Your task to perform on an android device: Search for pizza restaurants on Maps Image 0: 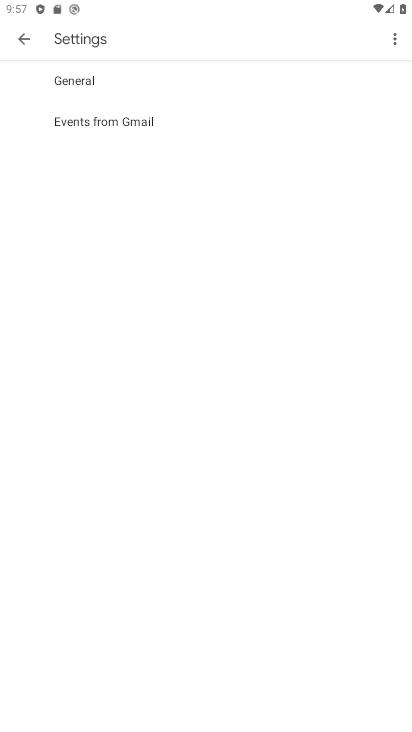
Step 0: press home button
Your task to perform on an android device: Search for pizza restaurants on Maps Image 1: 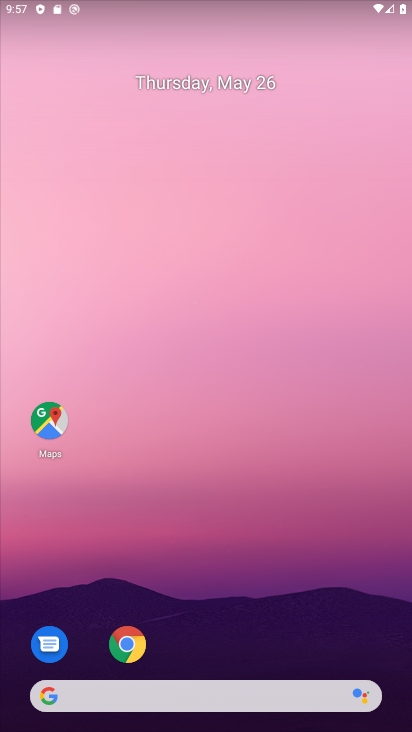
Step 1: drag from (371, 631) to (347, 173)
Your task to perform on an android device: Search for pizza restaurants on Maps Image 2: 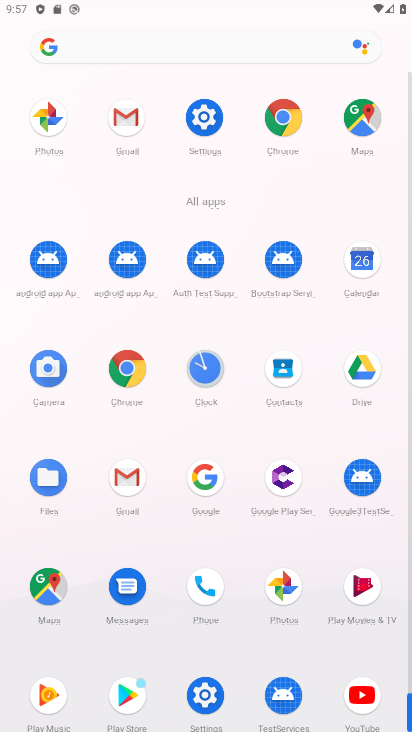
Step 2: click (370, 139)
Your task to perform on an android device: Search for pizza restaurants on Maps Image 3: 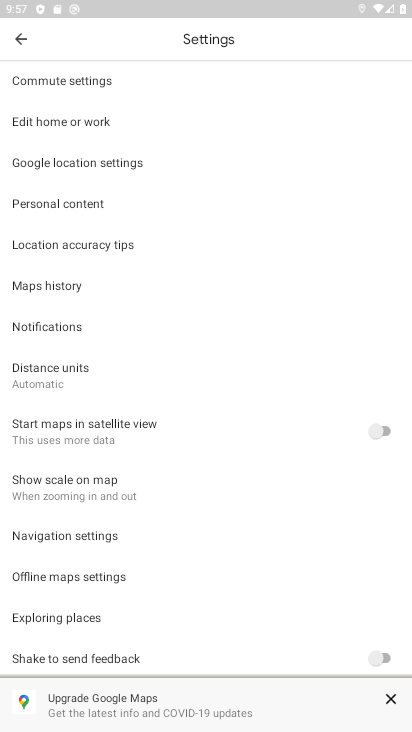
Step 3: click (18, 47)
Your task to perform on an android device: Search for pizza restaurants on Maps Image 4: 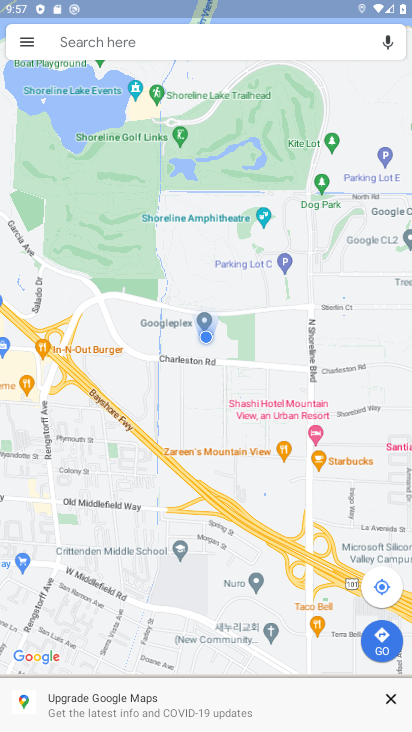
Step 4: click (176, 35)
Your task to perform on an android device: Search for pizza restaurants on Maps Image 5: 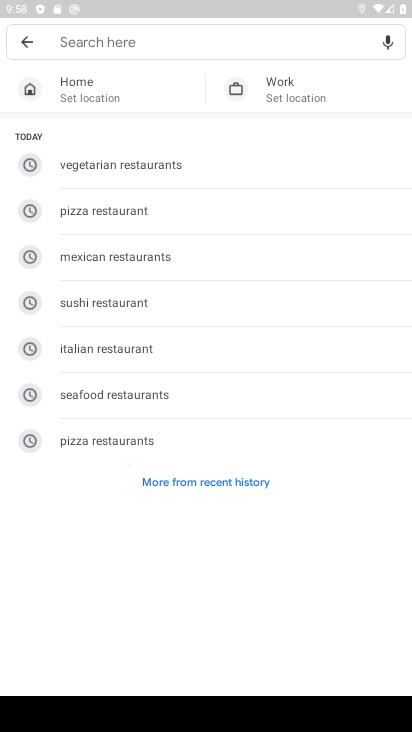
Step 5: click (97, 42)
Your task to perform on an android device: Search for pizza restaurants on Maps Image 6: 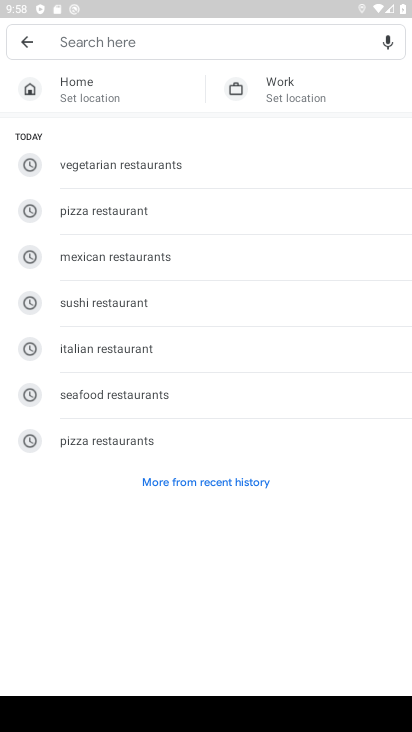
Step 6: type "pizzaa"
Your task to perform on an android device: Search for pizza restaurants on Maps Image 7: 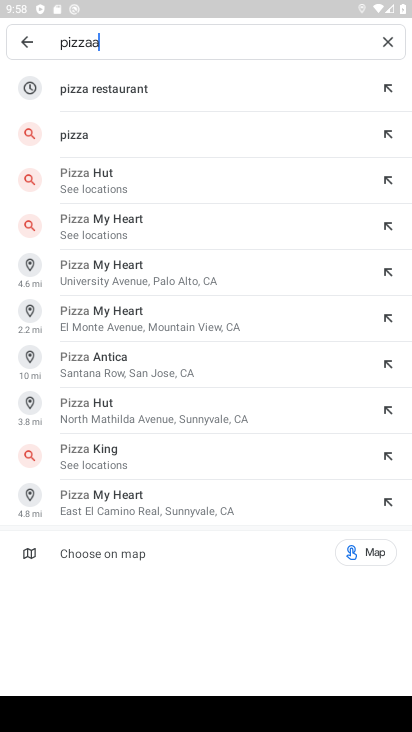
Step 7: click (148, 80)
Your task to perform on an android device: Search for pizza restaurants on Maps Image 8: 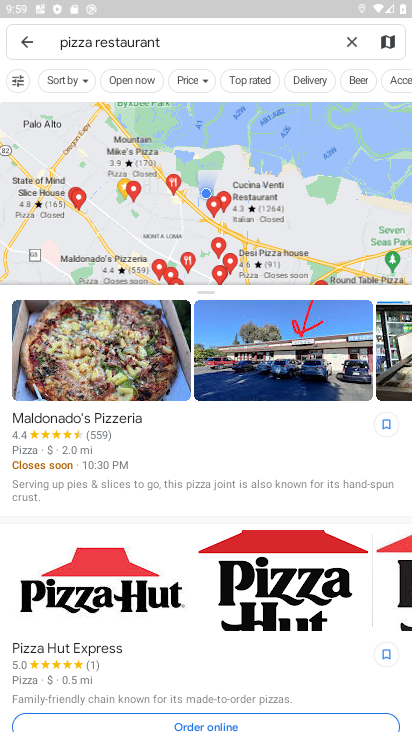
Step 8: task complete